Your task to perform on an android device: move a message to another label in the gmail app Image 0: 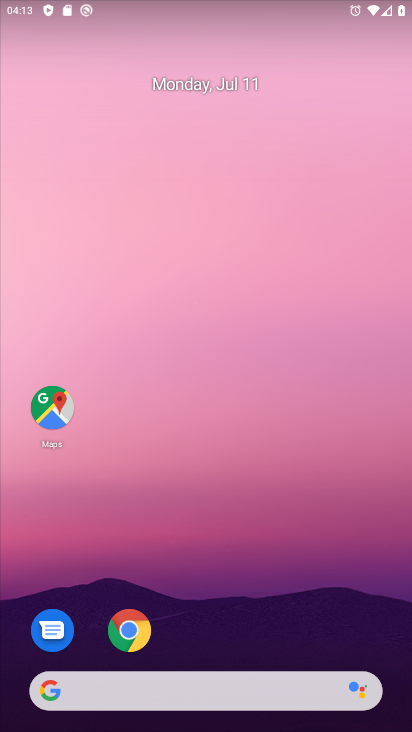
Step 0: drag from (212, 634) to (212, 0)
Your task to perform on an android device: move a message to another label in the gmail app Image 1: 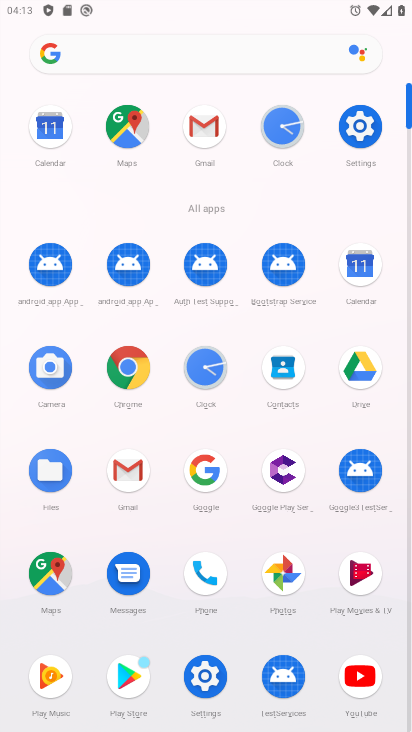
Step 1: click (199, 121)
Your task to perform on an android device: move a message to another label in the gmail app Image 2: 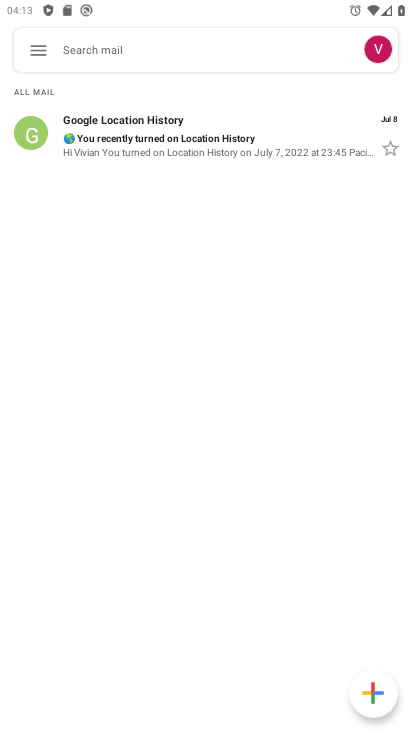
Step 2: click (24, 131)
Your task to perform on an android device: move a message to another label in the gmail app Image 3: 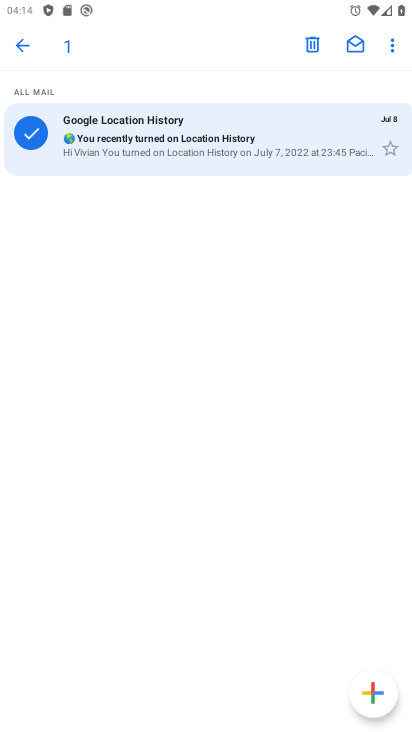
Step 3: click (389, 46)
Your task to perform on an android device: move a message to another label in the gmail app Image 4: 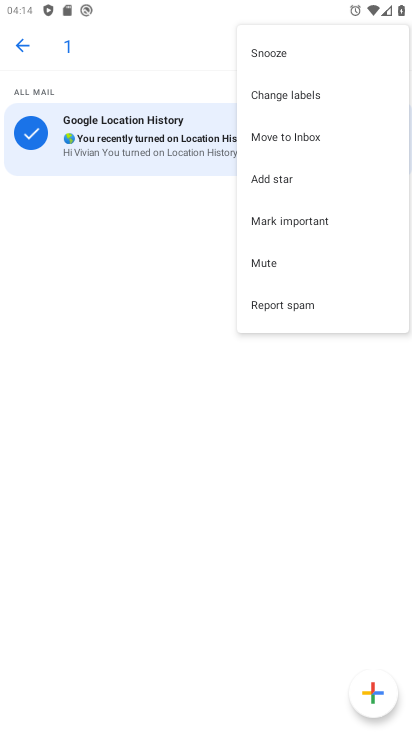
Step 4: click (304, 133)
Your task to perform on an android device: move a message to another label in the gmail app Image 5: 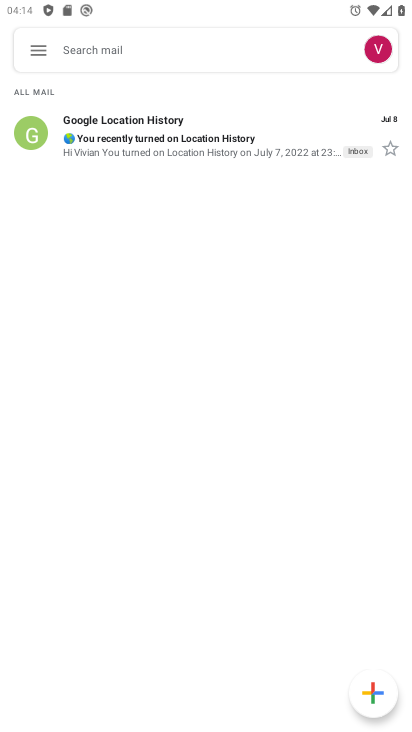
Step 5: task complete